Your task to perform on an android device: Open internet settings Image 0: 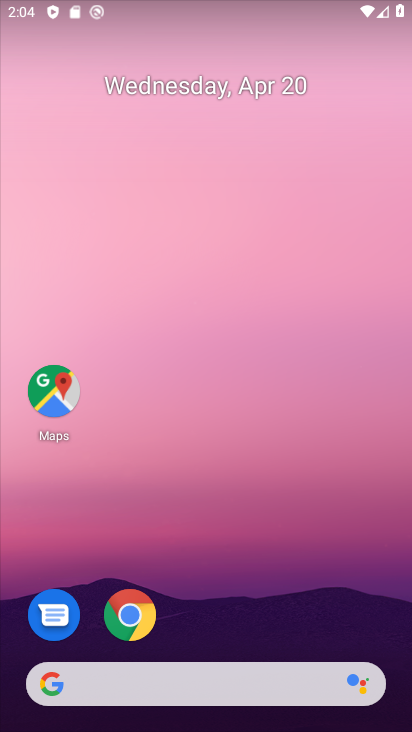
Step 0: drag from (277, 636) to (291, 119)
Your task to perform on an android device: Open internet settings Image 1: 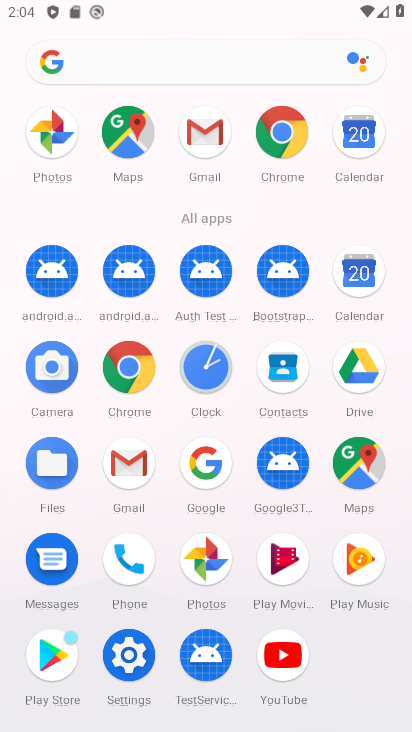
Step 1: click (139, 659)
Your task to perform on an android device: Open internet settings Image 2: 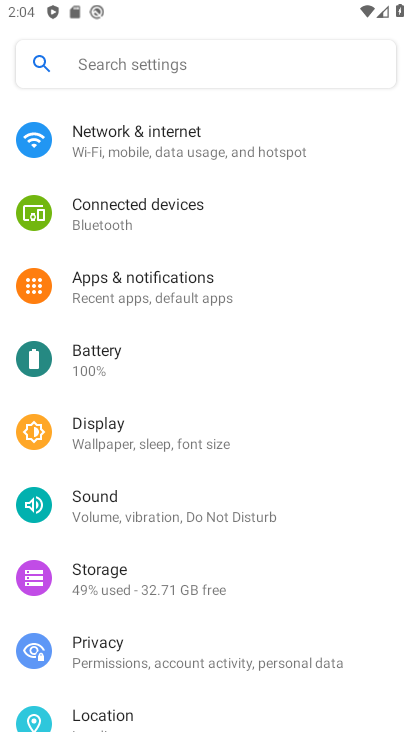
Step 2: click (220, 159)
Your task to perform on an android device: Open internet settings Image 3: 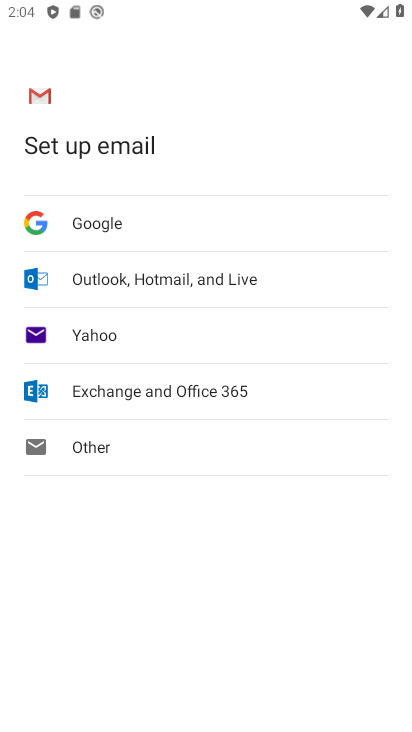
Step 3: press back button
Your task to perform on an android device: Open internet settings Image 4: 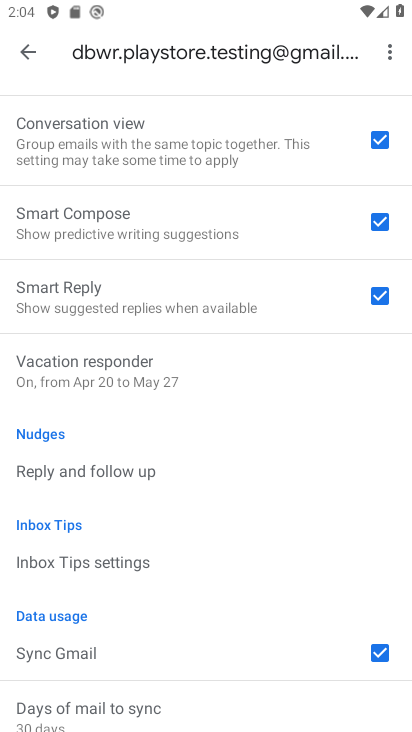
Step 4: press home button
Your task to perform on an android device: Open internet settings Image 5: 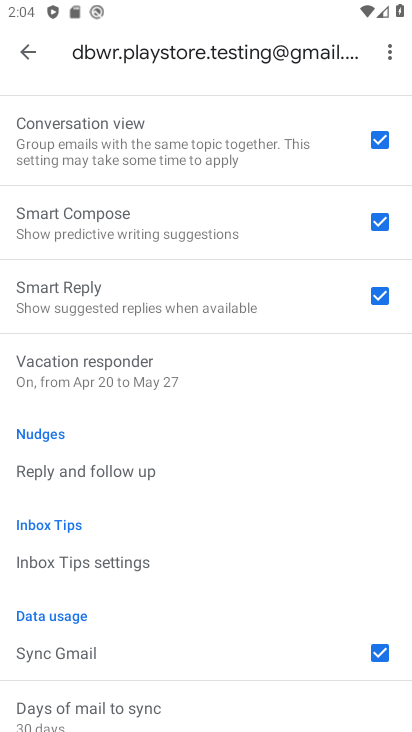
Step 5: press home button
Your task to perform on an android device: Open internet settings Image 6: 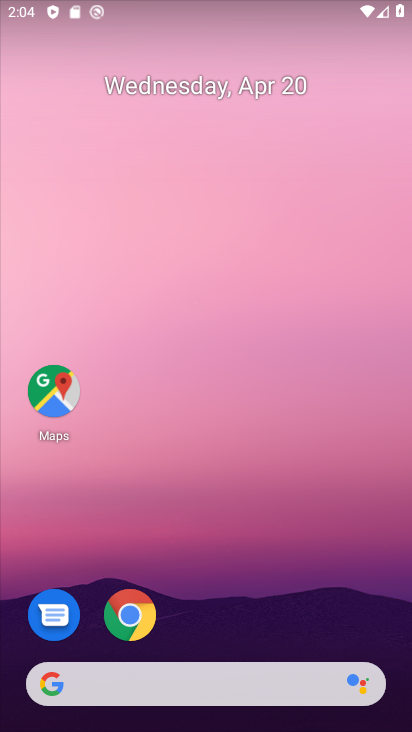
Step 6: drag from (262, 401) to (254, 117)
Your task to perform on an android device: Open internet settings Image 7: 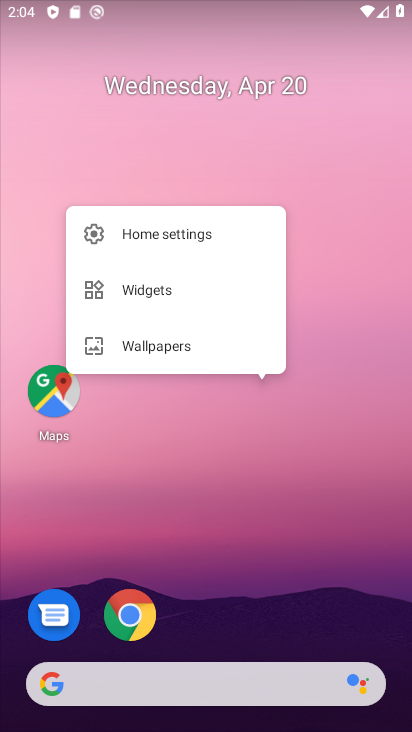
Step 7: drag from (304, 524) to (271, 194)
Your task to perform on an android device: Open internet settings Image 8: 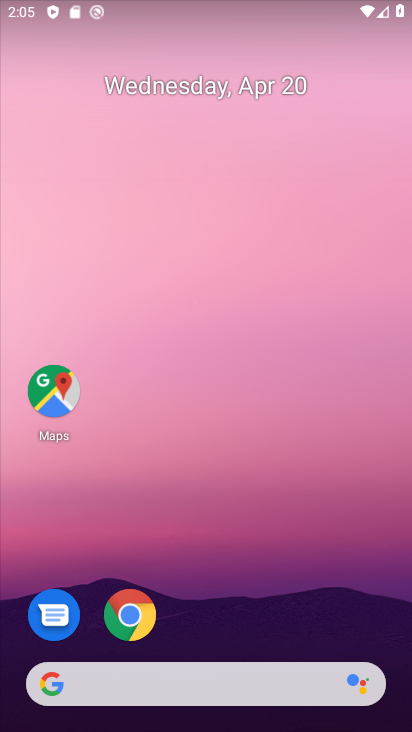
Step 8: drag from (310, 621) to (302, 73)
Your task to perform on an android device: Open internet settings Image 9: 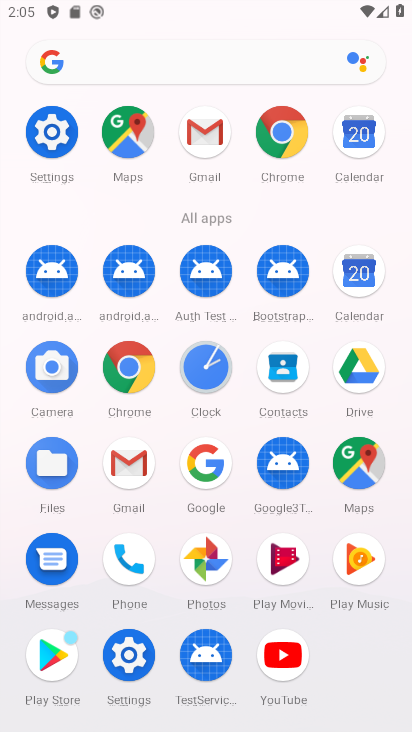
Step 9: click (54, 140)
Your task to perform on an android device: Open internet settings Image 10: 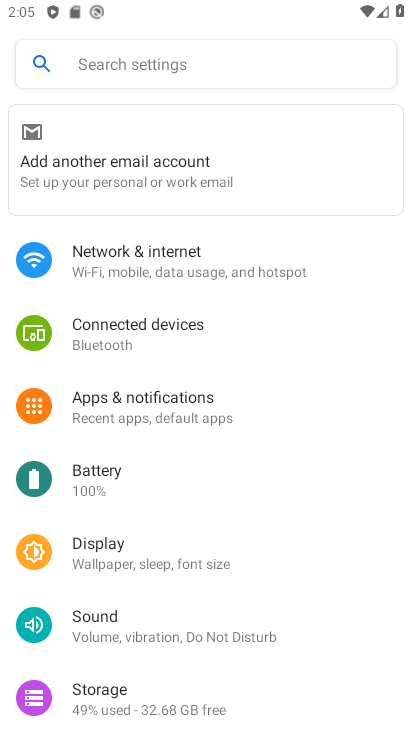
Step 10: click (125, 256)
Your task to perform on an android device: Open internet settings Image 11: 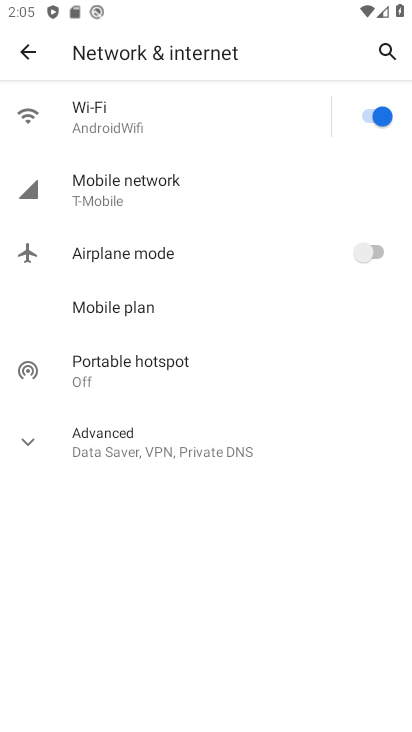
Step 11: task complete